Your task to perform on an android device: change text size in settings app Image 0: 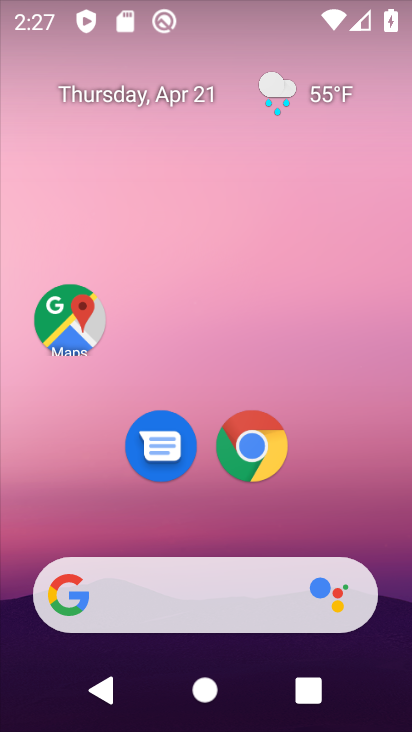
Step 0: drag from (210, 724) to (195, 59)
Your task to perform on an android device: change text size in settings app Image 1: 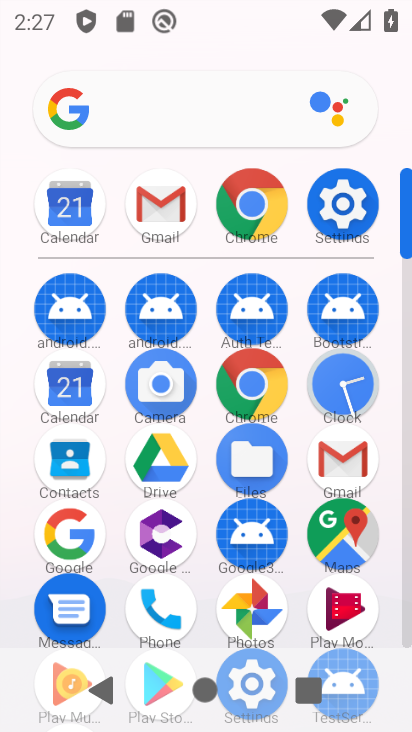
Step 1: click (338, 202)
Your task to perform on an android device: change text size in settings app Image 2: 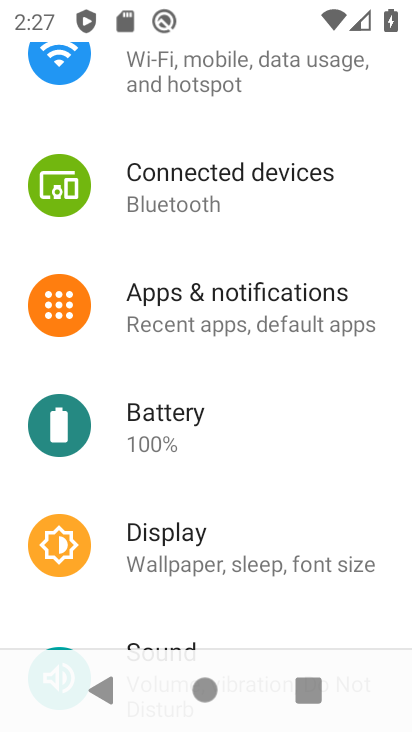
Step 2: click (209, 556)
Your task to perform on an android device: change text size in settings app Image 3: 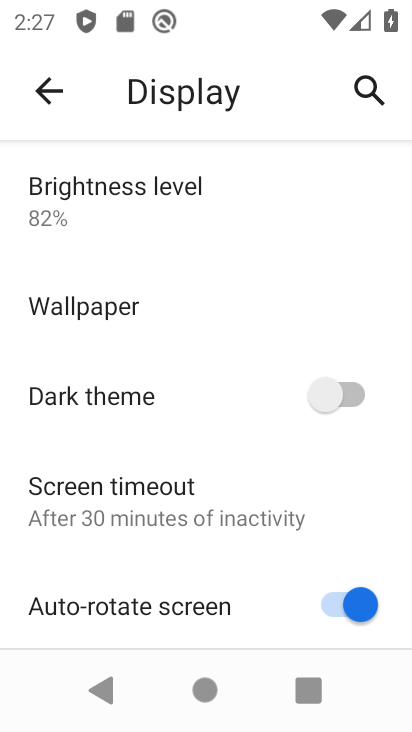
Step 3: drag from (181, 573) to (171, 240)
Your task to perform on an android device: change text size in settings app Image 4: 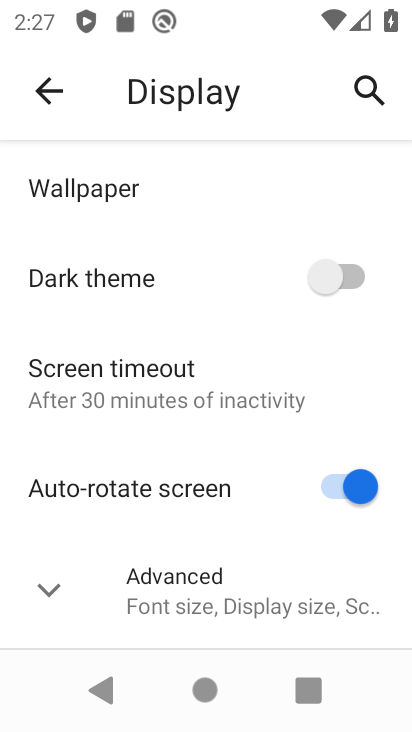
Step 4: click (206, 614)
Your task to perform on an android device: change text size in settings app Image 5: 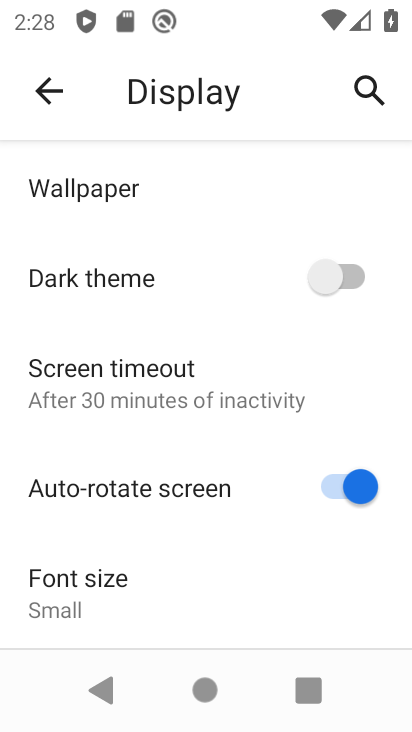
Step 5: drag from (213, 604) to (188, 299)
Your task to perform on an android device: change text size in settings app Image 6: 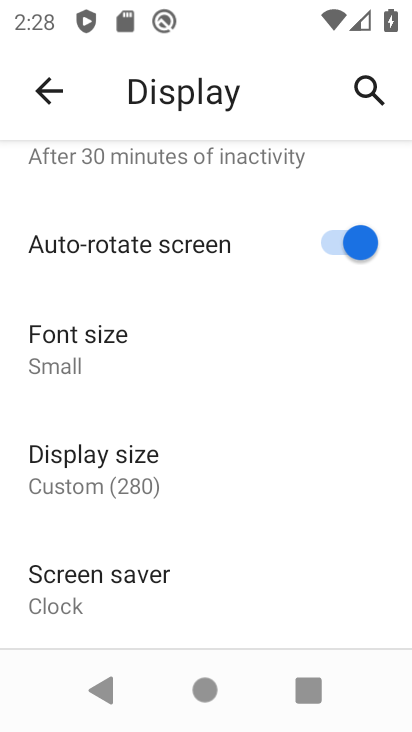
Step 6: click (72, 345)
Your task to perform on an android device: change text size in settings app Image 7: 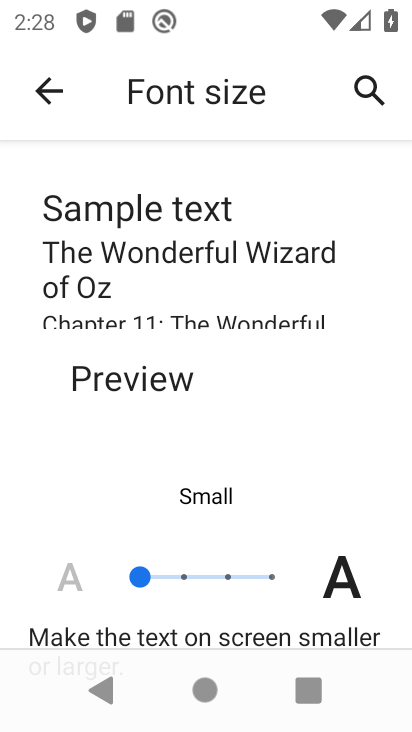
Step 7: click (182, 576)
Your task to perform on an android device: change text size in settings app Image 8: 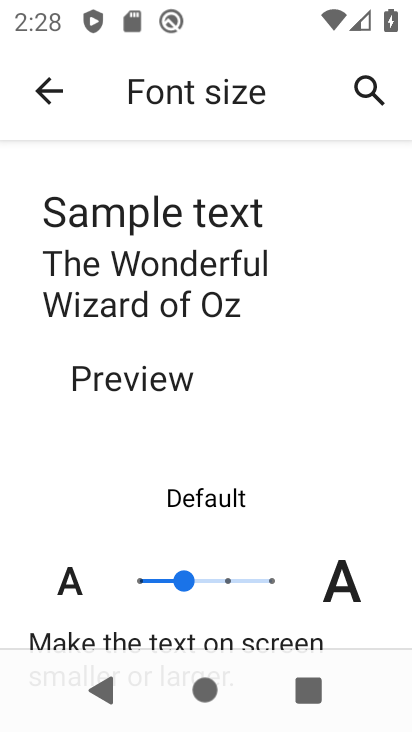
Step 8: task complete